Your task to perform on an android device: Go to calendar. Show me events next week Image 0: 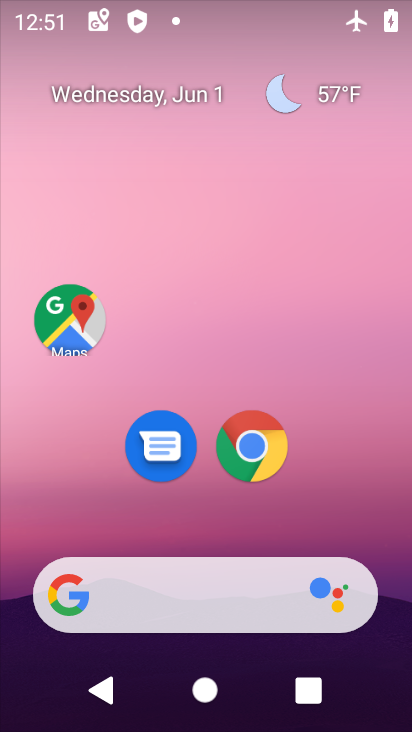
Step 0: drag from (208, 522) to (277, 145)
Your task to perform on an android device: Go to calendar. Show me events next week Image 1: 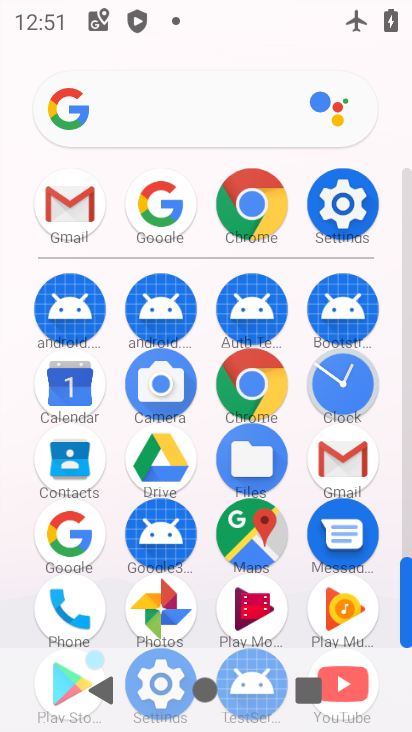
Step 1: drag from (207, 163) to (208, 46)
Your task to perform on an android device: Go to calendar. Show me events next week Image 2: 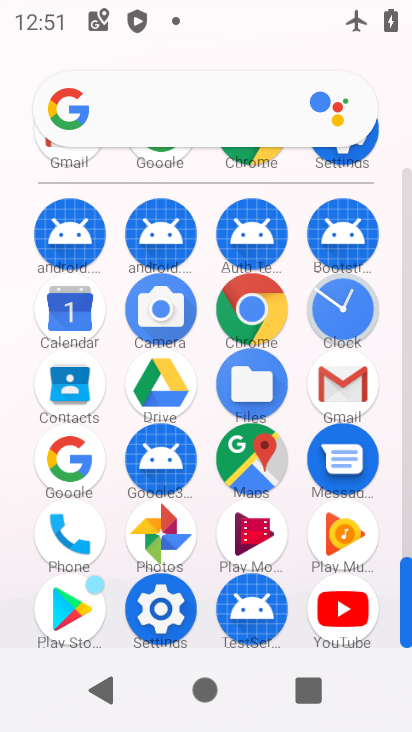
Step 2: click (79, 319)
Your task to perform on an android device: Go to calendar. Show me events next week Image 3: 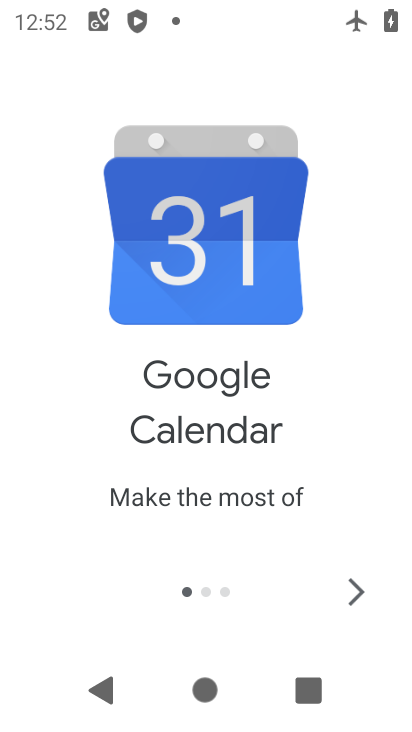
Step 3: click (362, 593)
Your task to perform on an android device: Go to calendar. Show me events next week Image 4: 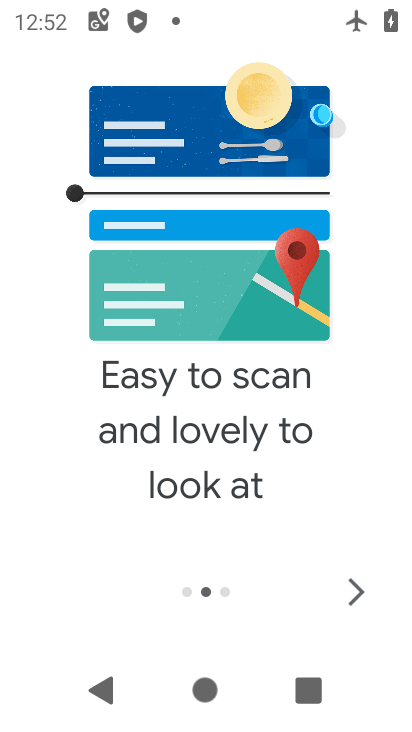
Step 4: click (361, 593)
Your task to perform on an android device: Go to calendar. Show me events next week Image 5: 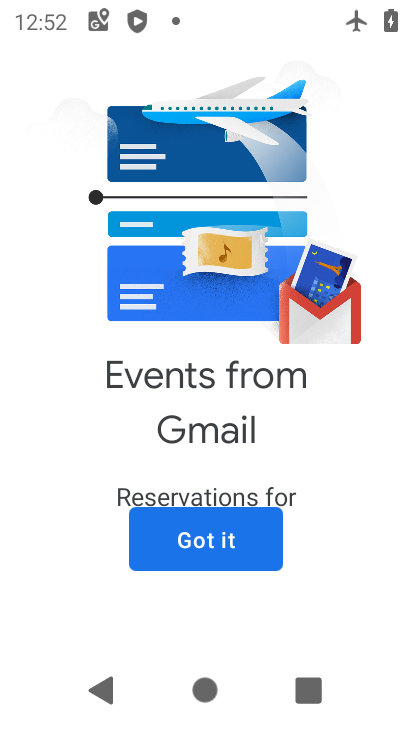
Step 5: click (259, 563)
Your task to perform on an android device: Go to calendar. Show me events next week Image 6: 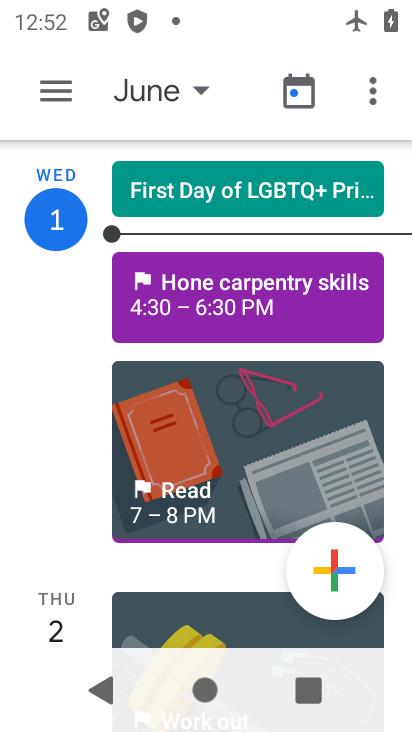
Step 6: click (150, 99)
Your task to perform on an android device: Go to calendar. Show me events next week Image 7: 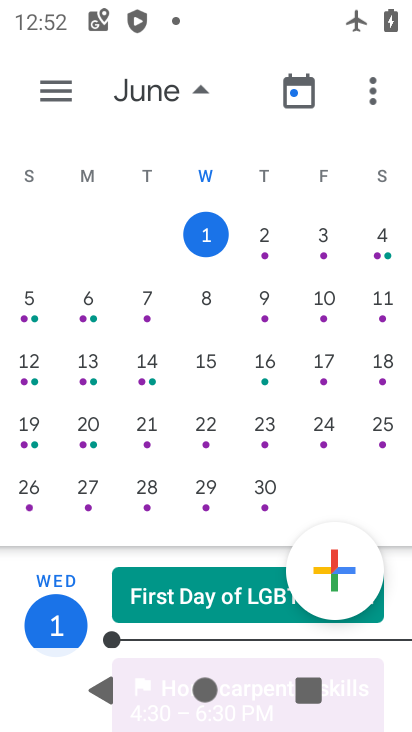
Step 7: click (11, 309)
Your task to perform on an android device: Go to calendar. Show me events next week Image 8: 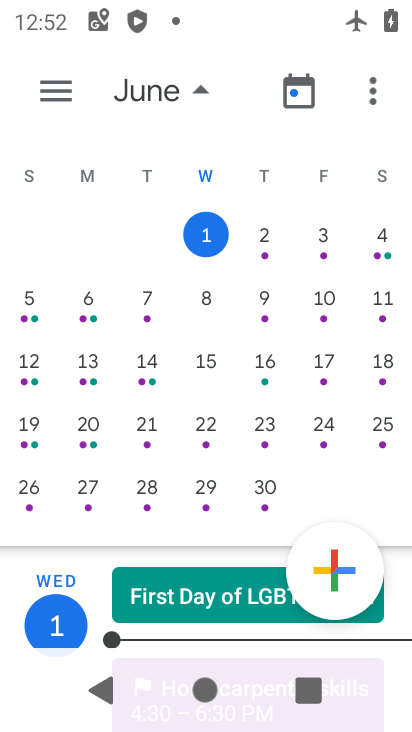
Step 8: click (38, 309)
Your task to perform on an android device: Go to calendar. Show me events next week Image 9: 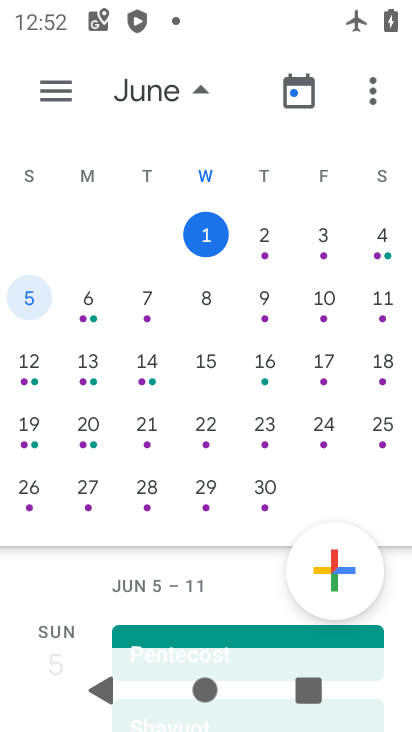
Step 9: click (196, 89)
Your task to perform on an android device: Go to calendar. Show me events next week Image 10: 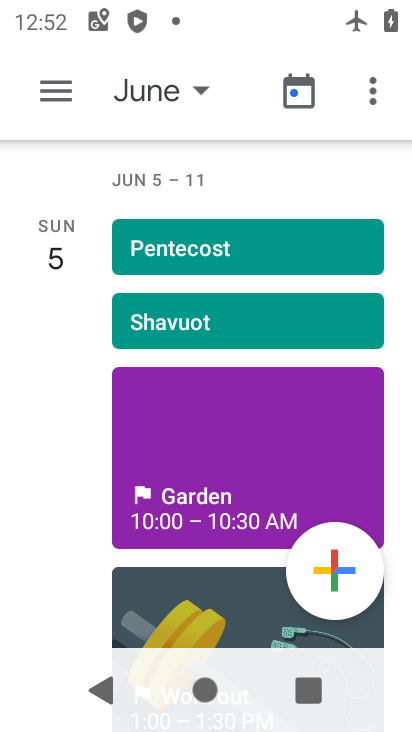
Step 10: task complete